Your task to perform on an android device: open device folders in google photos Image 0: 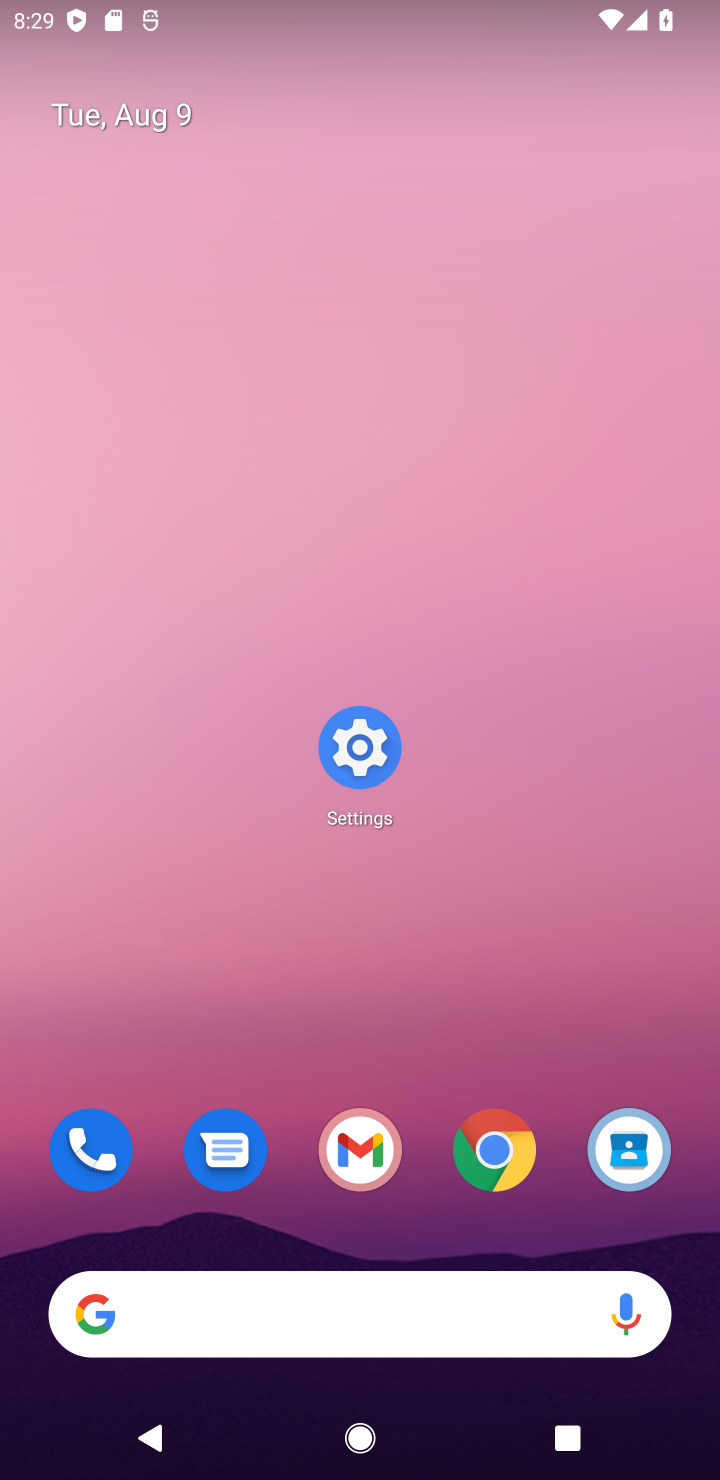
Step 0: drag from (437, 1307) to (572, 304)
Your task to perform on an android device: open device folders in google photos Image 1: 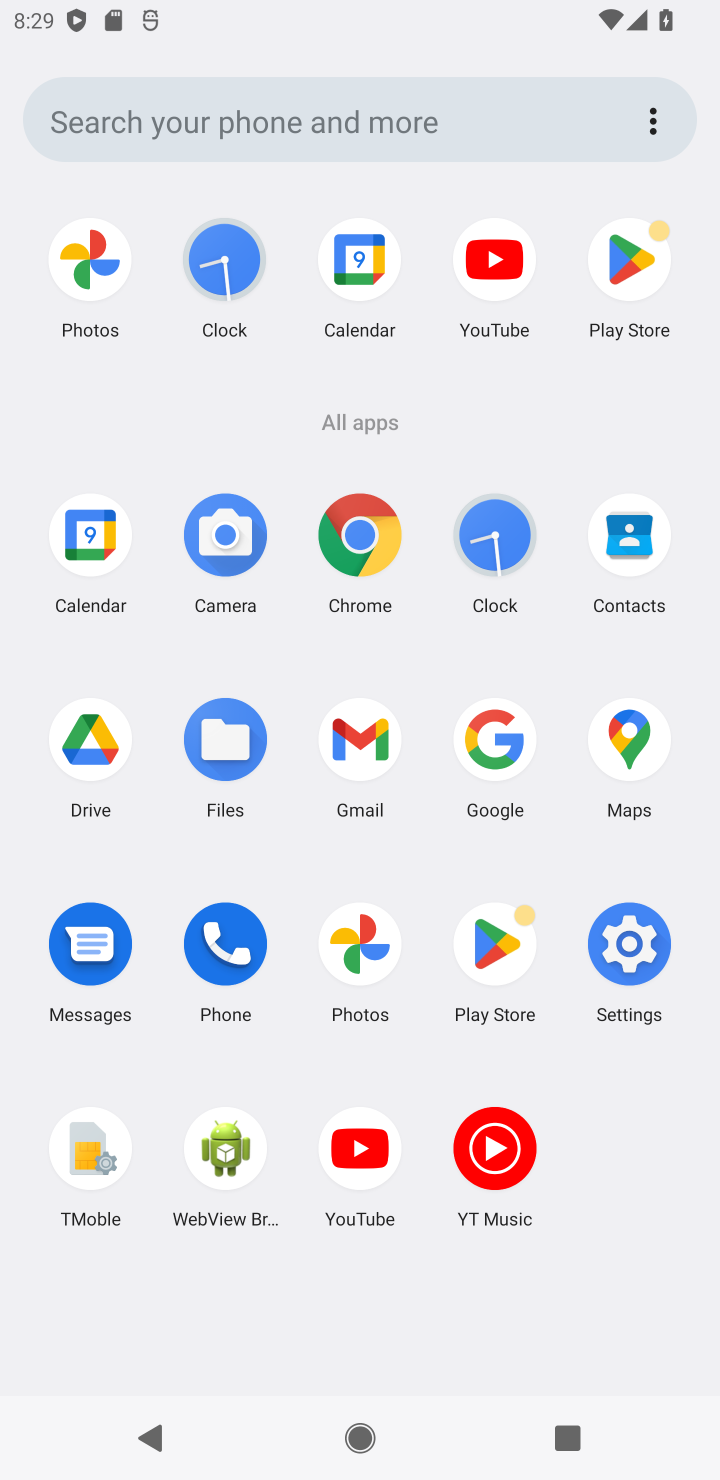
Step 1: click (348, 924)
Your task to perform on an android device: open device folders in google photos Image 2: 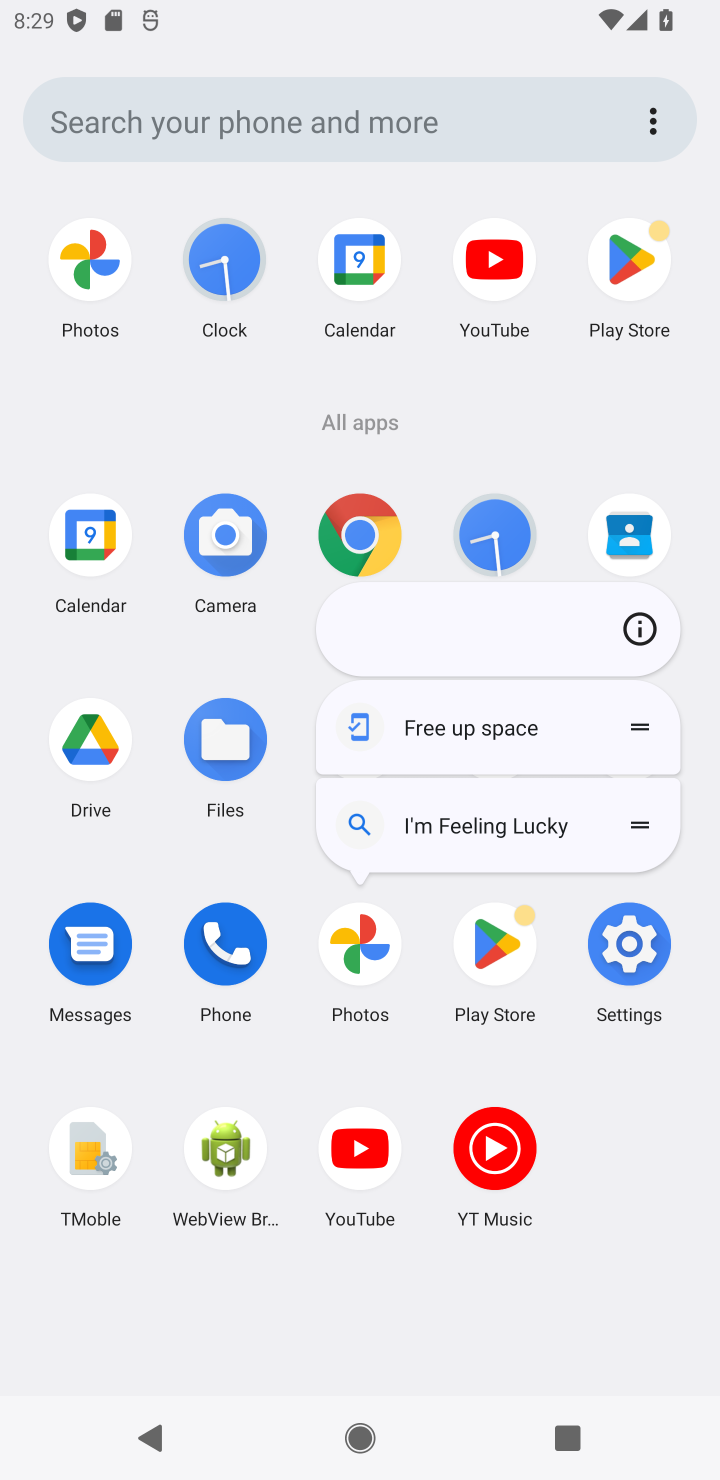
Step 2: click (372, 932)
Your task to perform on an android device: open device folders in google photos Image 3: 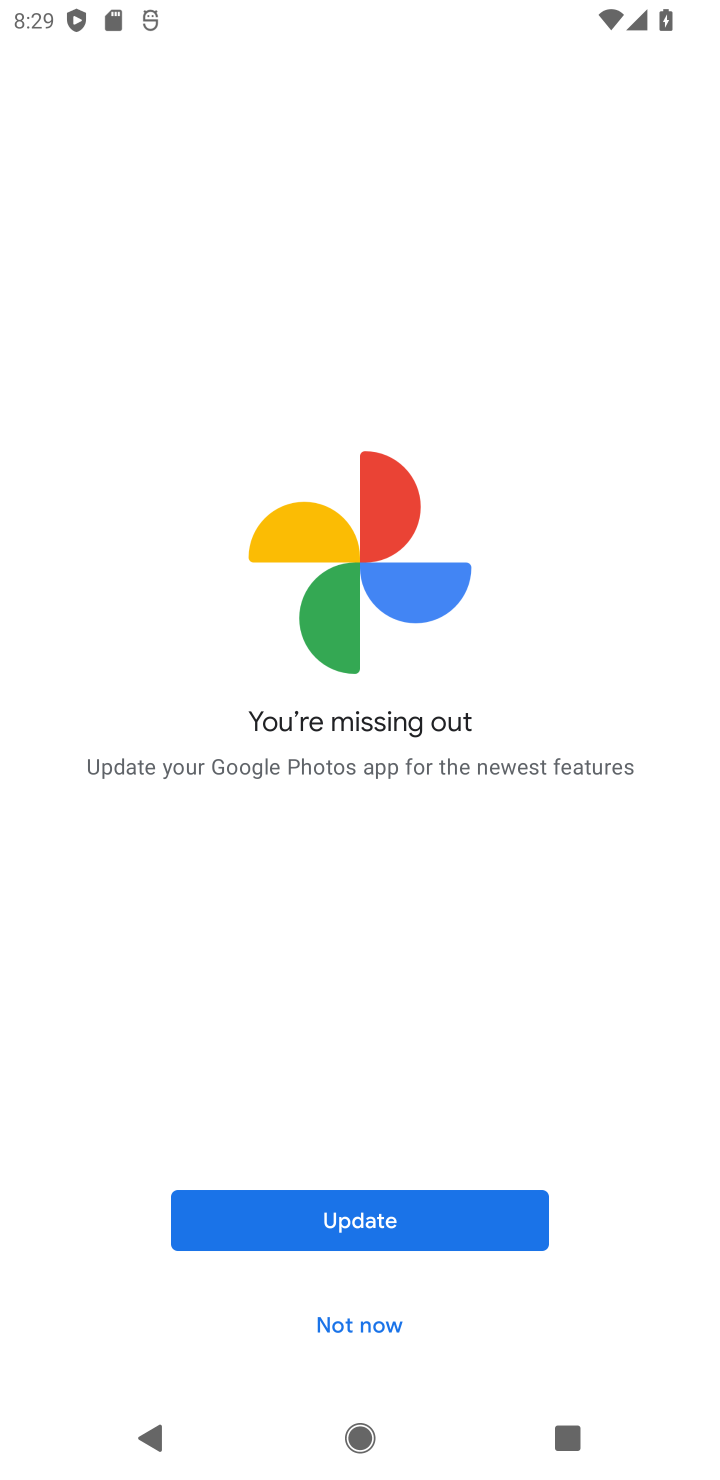
Step 3: click (372, 951)
Your task to perform on an android device: open device folders in google photos Image 4: 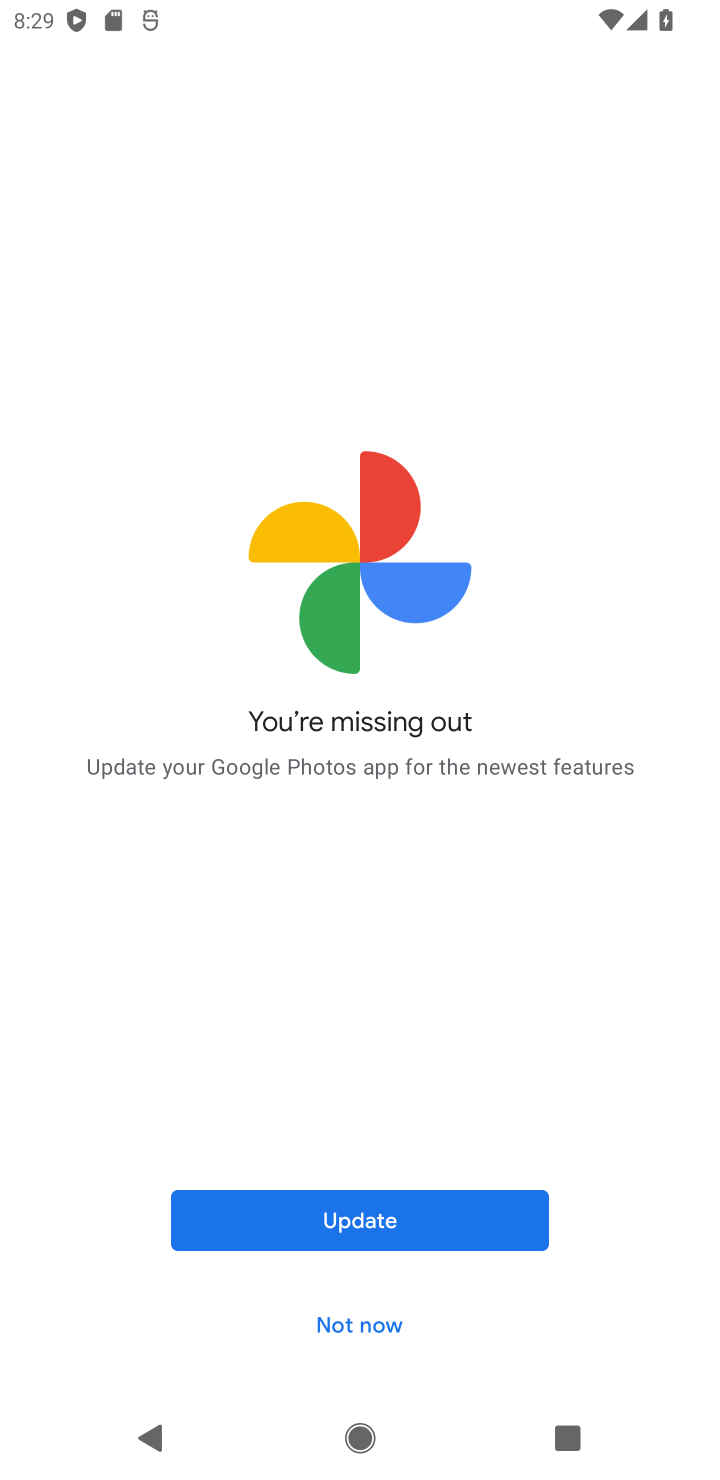
Step 4: click (343, 1210)
Your task to perform on an android device: open device folders in google photos Image 5: 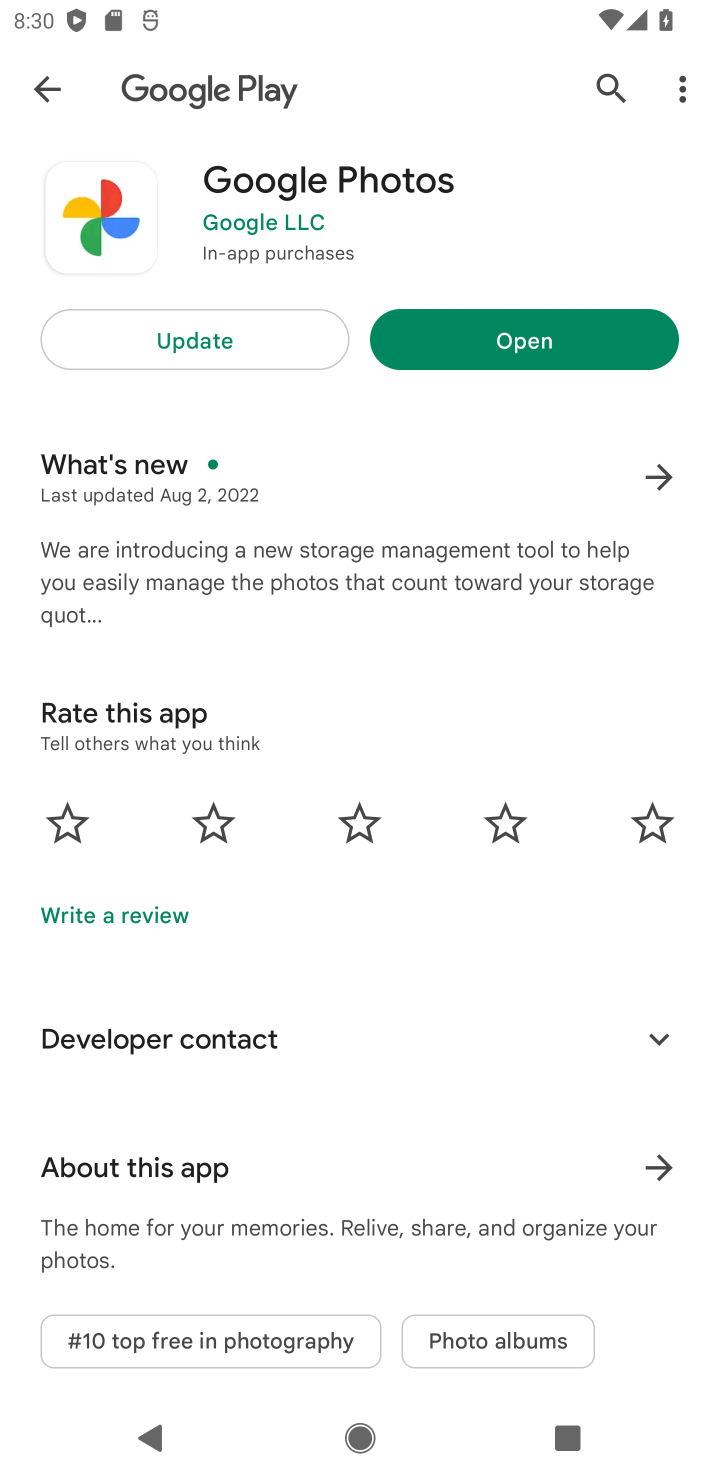
Step 5: click (188, 328)
Your task to perform on an android device: open device folders in google photos Image 6: 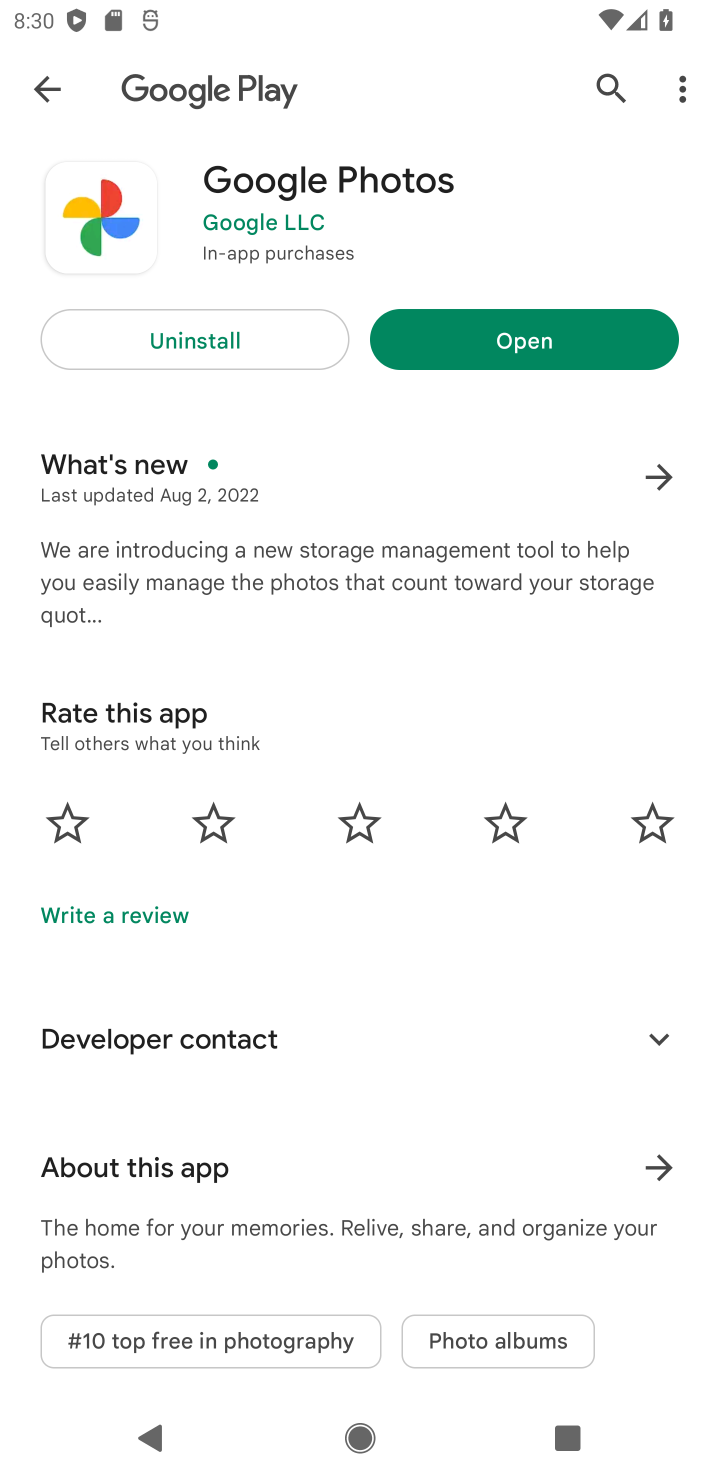
Step 6: click (549, 335)
Your task to perform on an android device: open device folders in google photos Image 7: 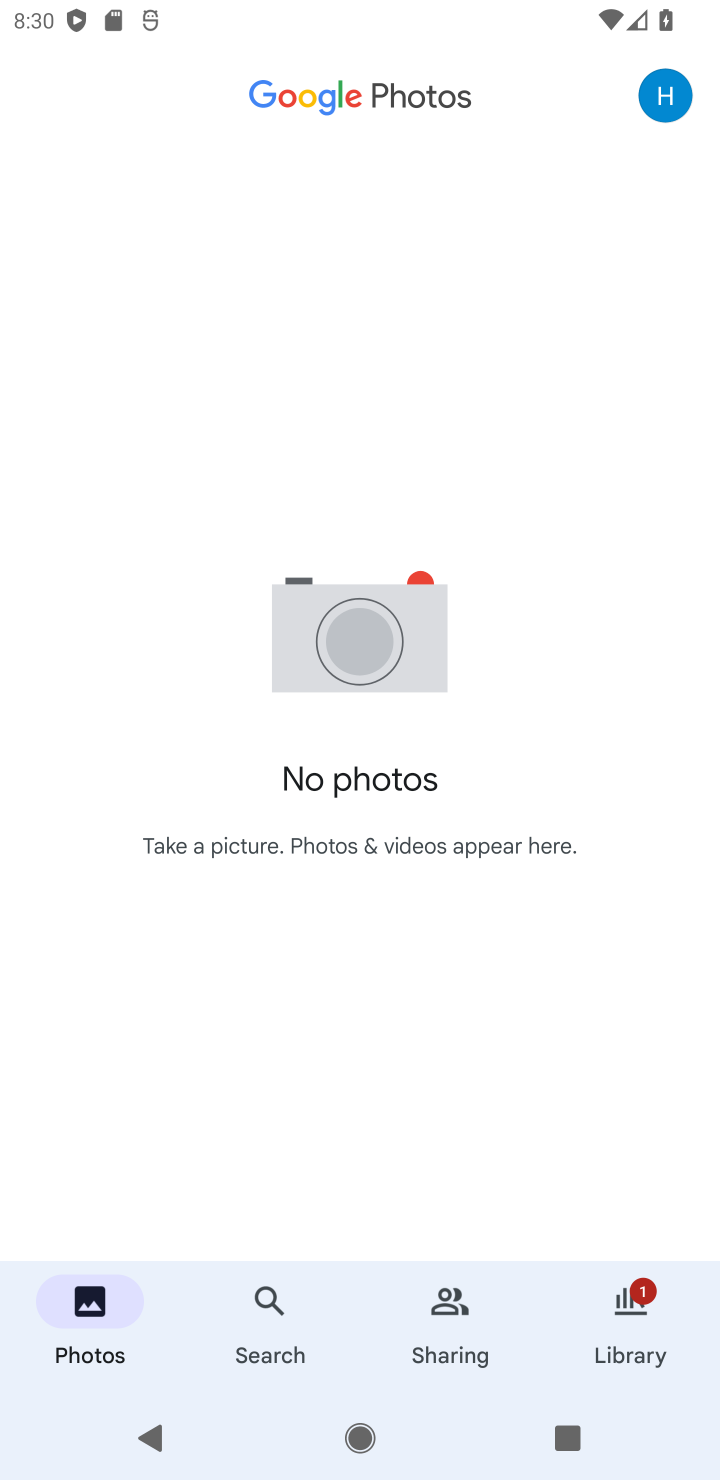
Step 7: click (619, 1301)
Your task to perform on an android device: open device folders in google photos Image 8: 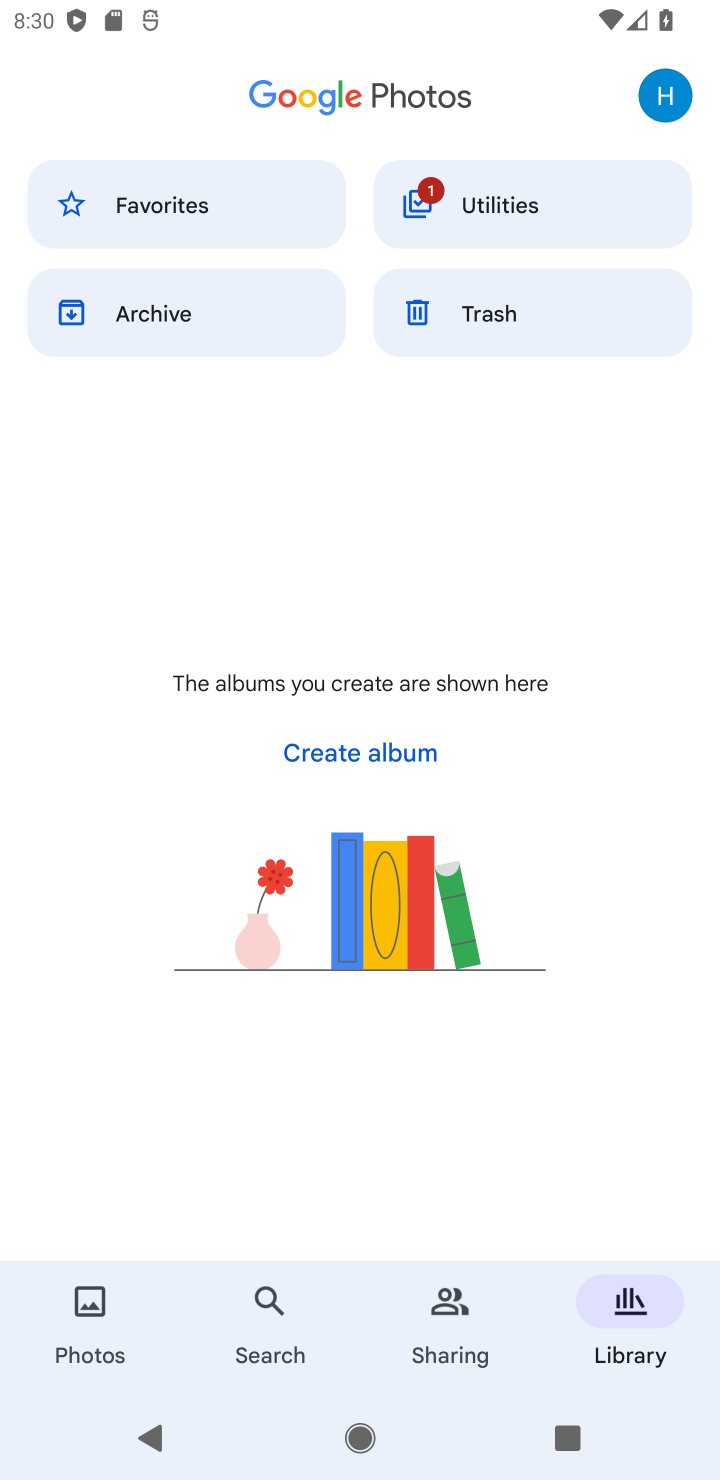
Step 8: task complete